Your task to perform on an android device: Open the web browser Image 0: 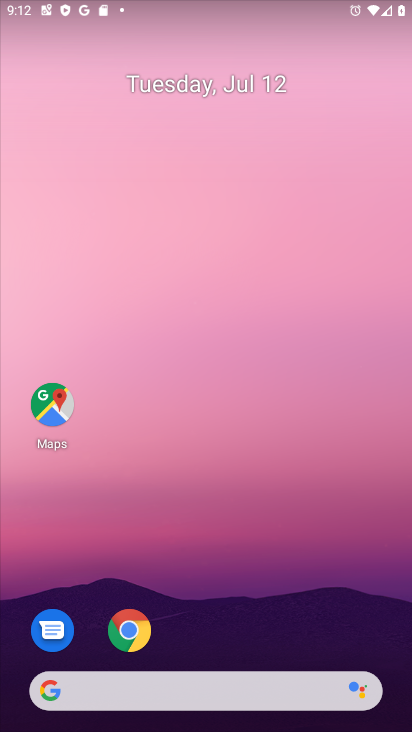
Step 0: drag from (214, 636) to (174, 278)
Your task to perform on an android device: Open the web browser Image 1: 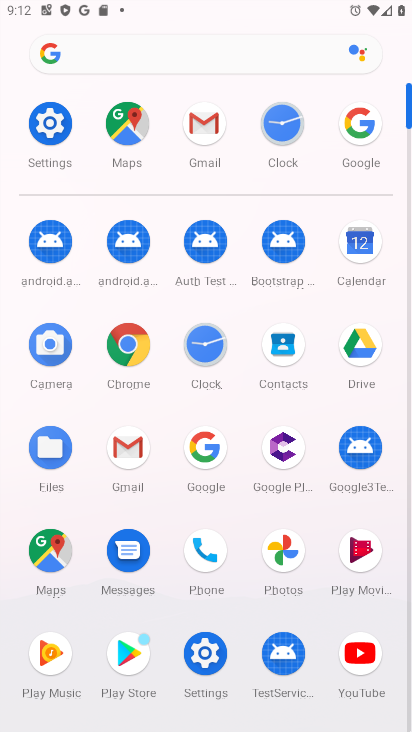
Step 1: click (359, 127)
Your task to perform on an android device: Open the web browser Image 2: 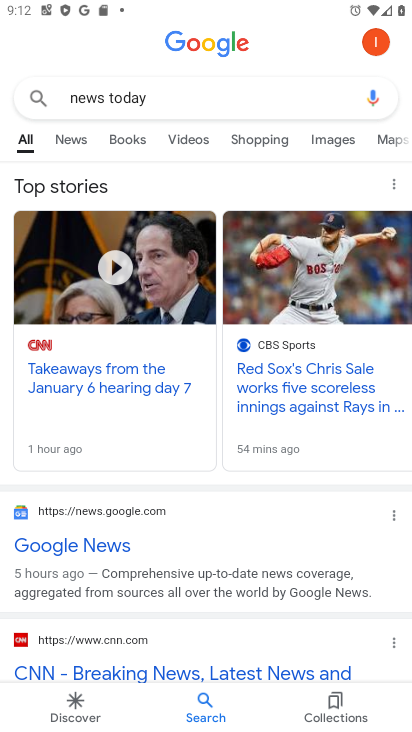
Step 2: task complete